Your task to perform on an android device: turn pop-ups off in chrome Image 0: 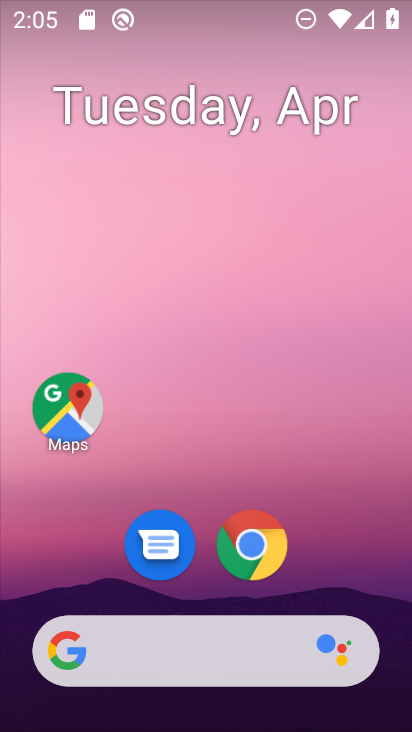
Step 0: drag from (359, 495) to (253, 75)
Your task to perform on an android device: turn pop-ups off in chrome Image 1: 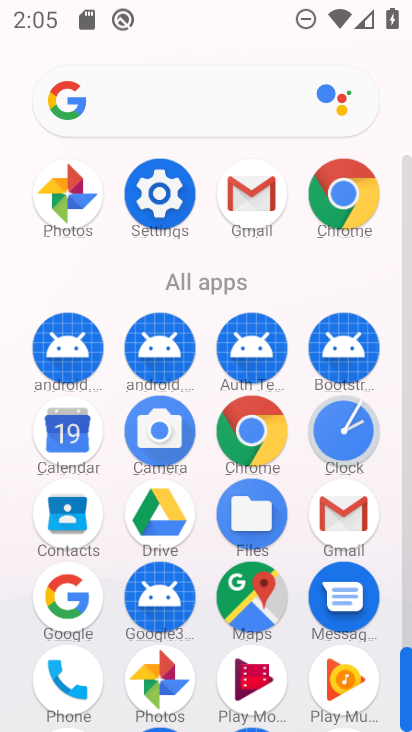
Step 1: click (156, 191)
Your task to perform on an android device: turn pop-ups off in chrome Image 2: 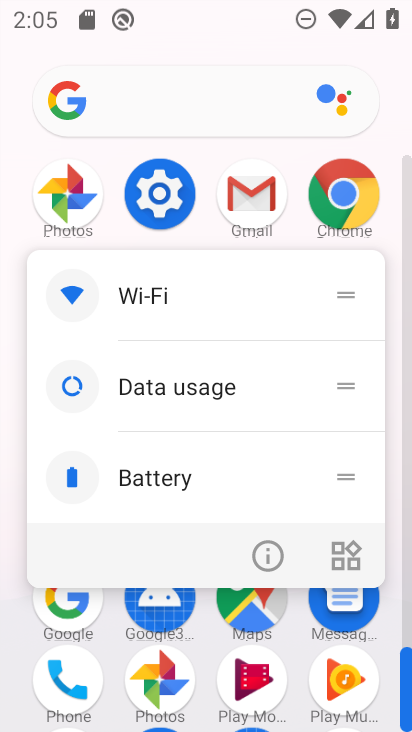
Step 2: click (156, 191)
Your task to perform on an android device: turn pop-ups off in chrome Image 3: 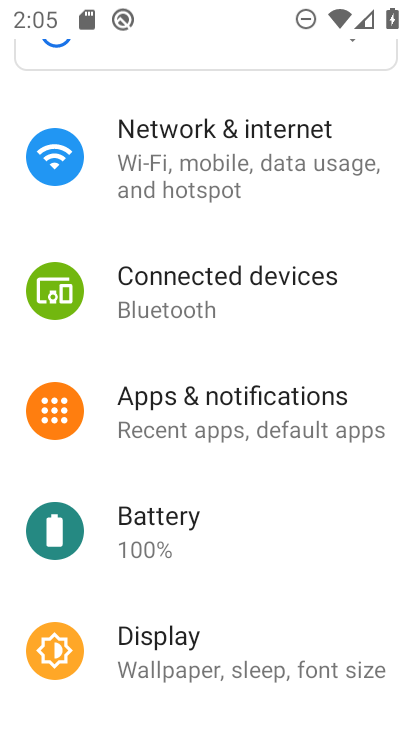
Step 3: press home button
Your task to perform on an android device: turn pop-ups off in chrome Image 4: 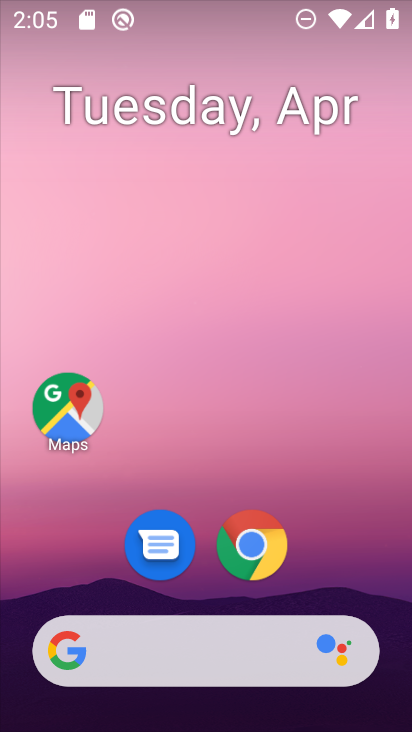
Step 4: drag from (385, 587) to (324, 267)
Your task to perform on an android device: turn pop-ups off in chrome Image 5: 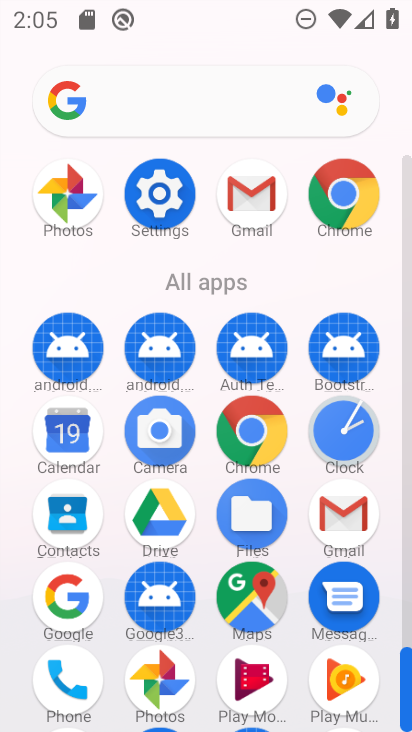
Step 5: click (355, 193)
Your task to perform on an android device: turn pop-ups off in chrome Image 6: 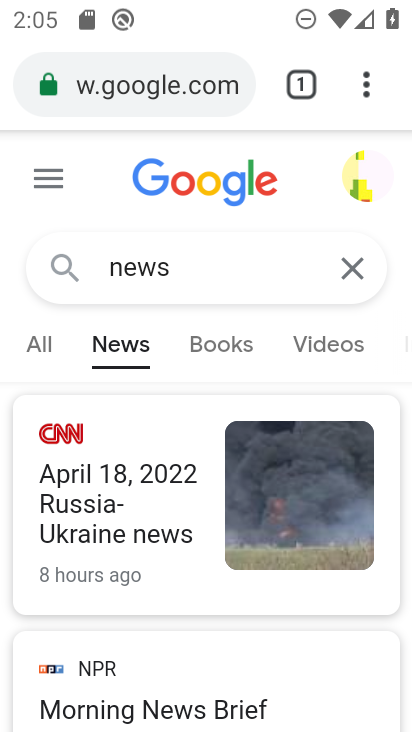
Step 6: click (366, 97)
Your task to perform on an android device: turn pop-ups off in chrome Image 7: 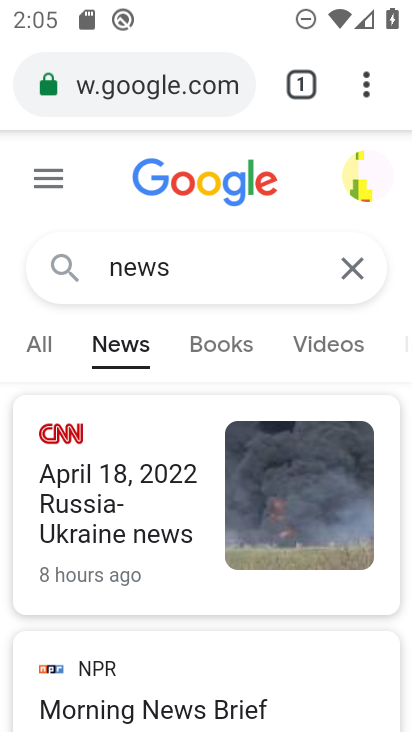
Step 7: click (366, 97)
Your task to perform on an android device: turn pop-ups off in chrome Image 8: 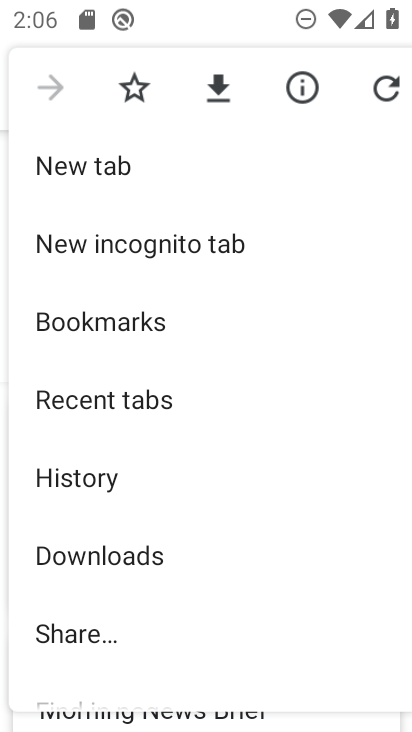
Step 8: drag from (308, 663) to (265, 339)
Your task to perform on an android device: turn pop-ups off in chrome Image 9: 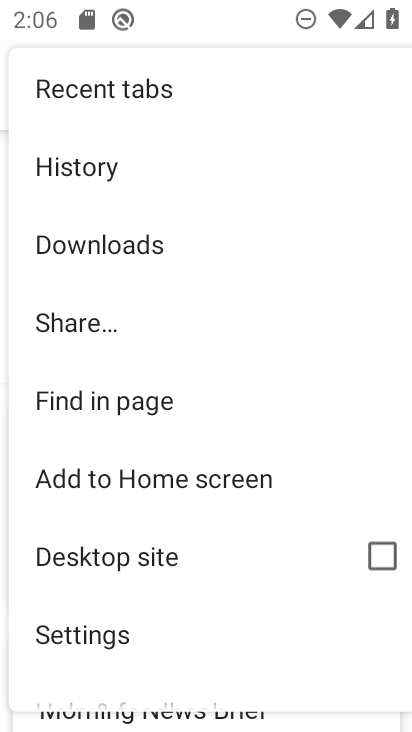
Step 9: click (237, 609)
Your task to perform on an android device: turn pop-ups off in chrome Image 10: 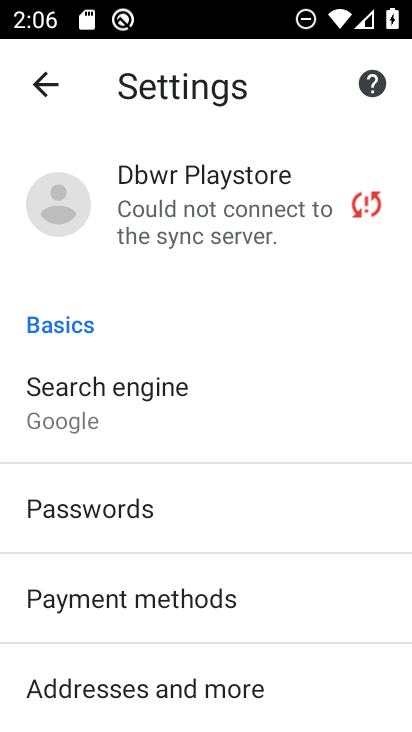
Step 10: drag from (284, 649) to (263, 115)
Your task to perform on an android device: turn pop-ups off in chrome Image 11: 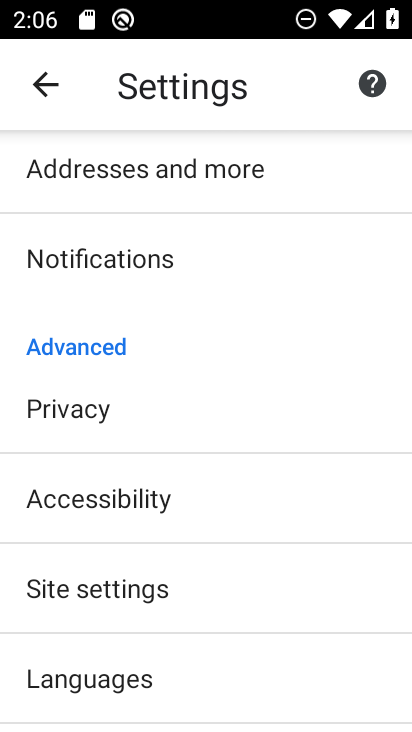
Step 11: drag from (291, 628) to (251, 193)
Your task to perform on an android device: turn pop-ups off in chrome Image 12: 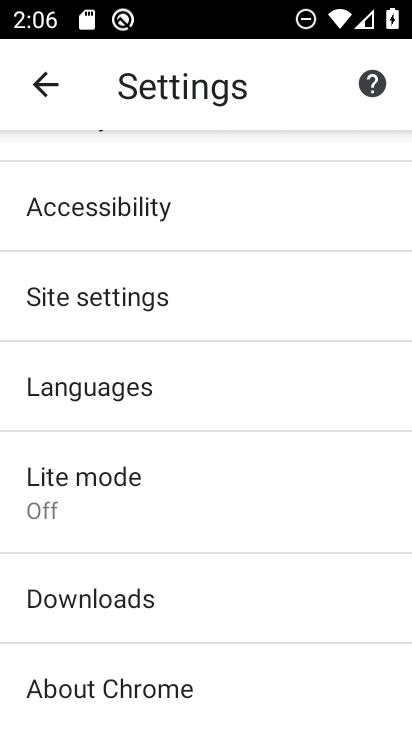
Step 12: click (285, 284)
Your task to perform on an android device: turn pop-ups off in chrome Image 13: 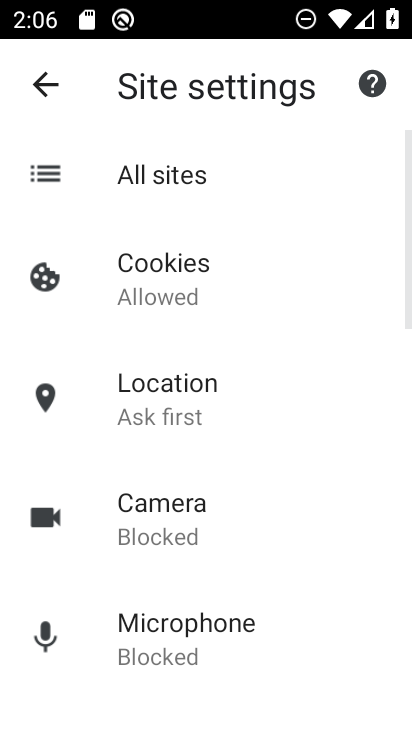
Step 13: drag from (294, 659) to (268, 379)
Your task to perform on an android device: turn pop-ups off in chrome Image 14: 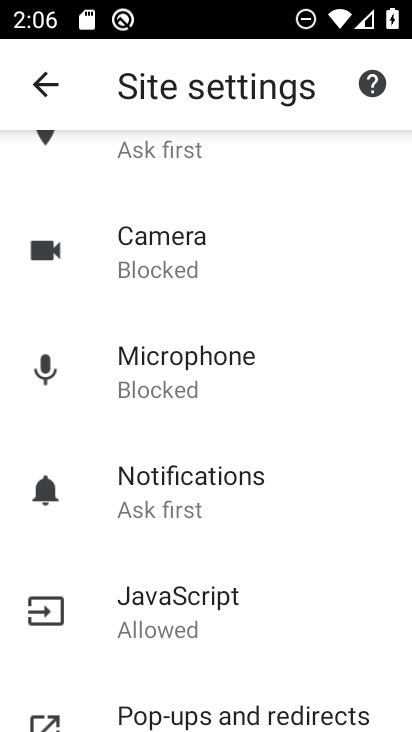
Step 14: click (311, 697)
Your task to perform on an android device: turn pop-ups off in chrome Image 15: 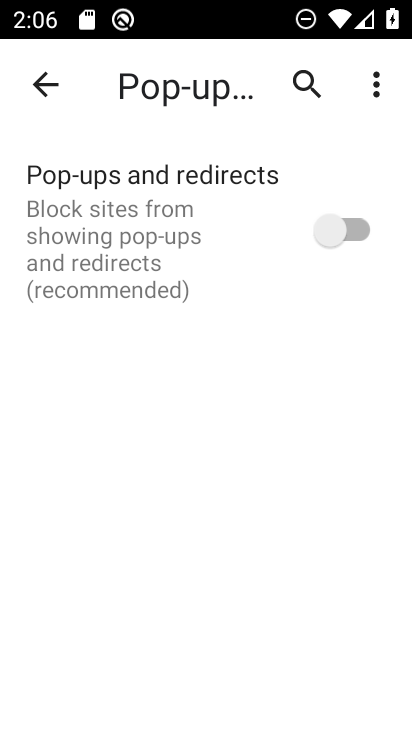
Step 15: task complete